Your task to perform on an android device: Clear the cart on newegg. Search for razer thresher on newegg, select the first entry, and add it to the cart. Image 0: 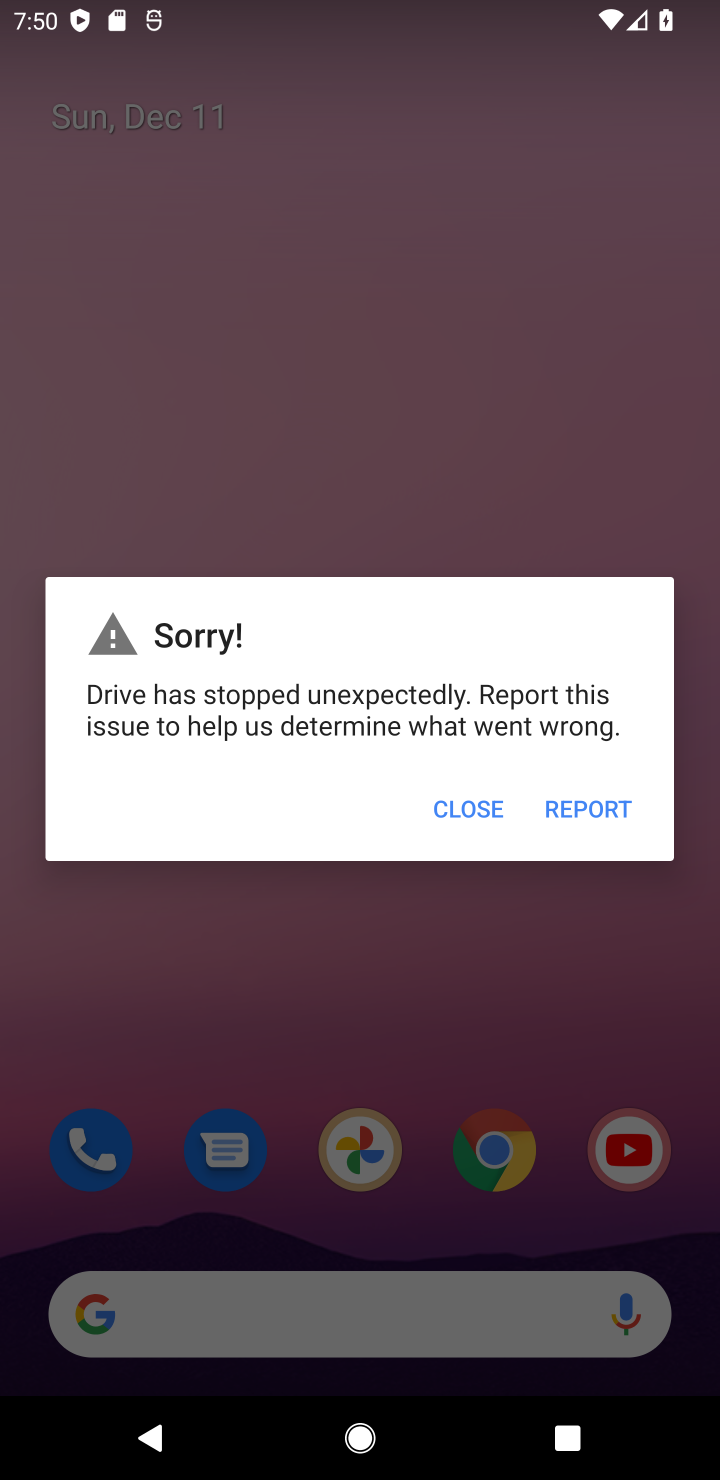
Step 0: press home button
Your task to perform on an android device: Clear the cart on newegg. Search for razer thresher on newegg, select the first entry, and add it to the cart. Image 1: 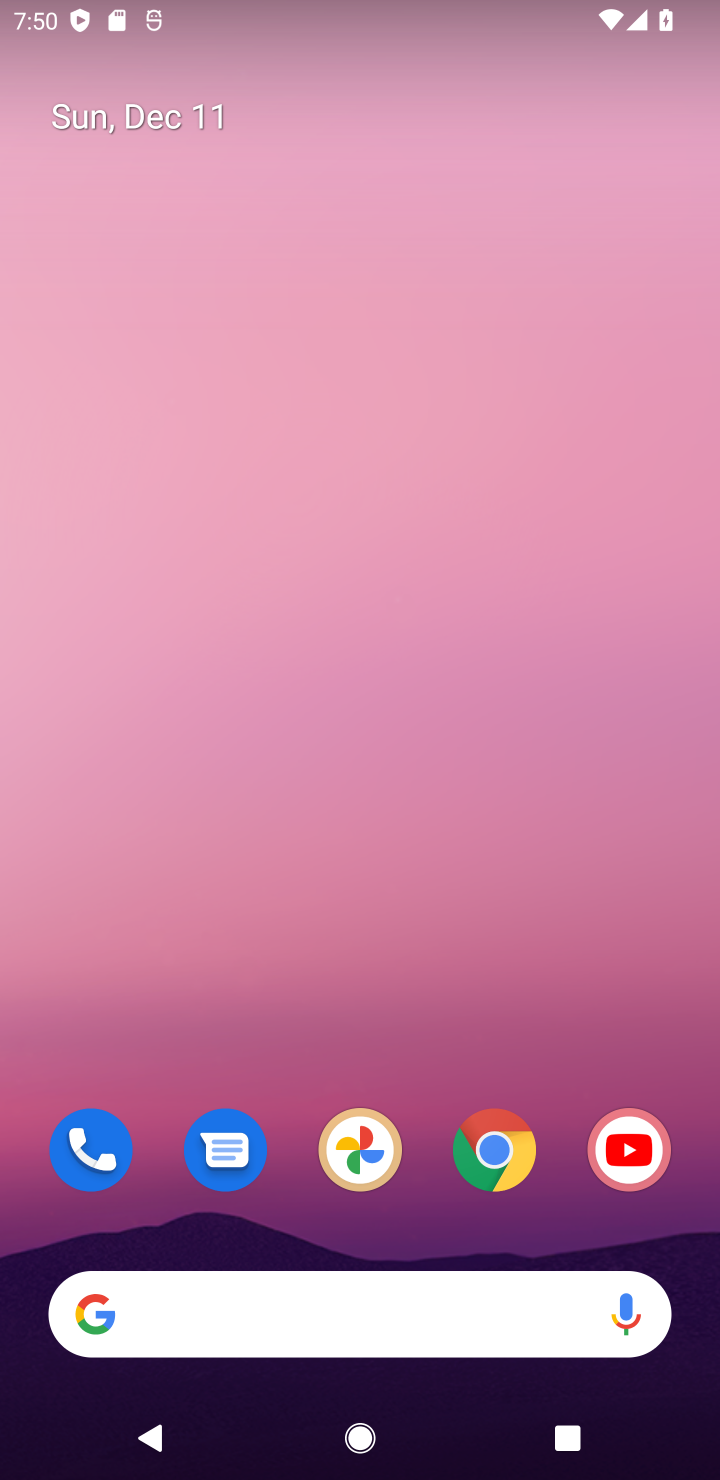
Step 1: click (494, 1151)
Your task to perform on an android device: Clear the cart on newegg. Search for razer thresher on newegg, select the first entry, and add it to the cart. Image 2: 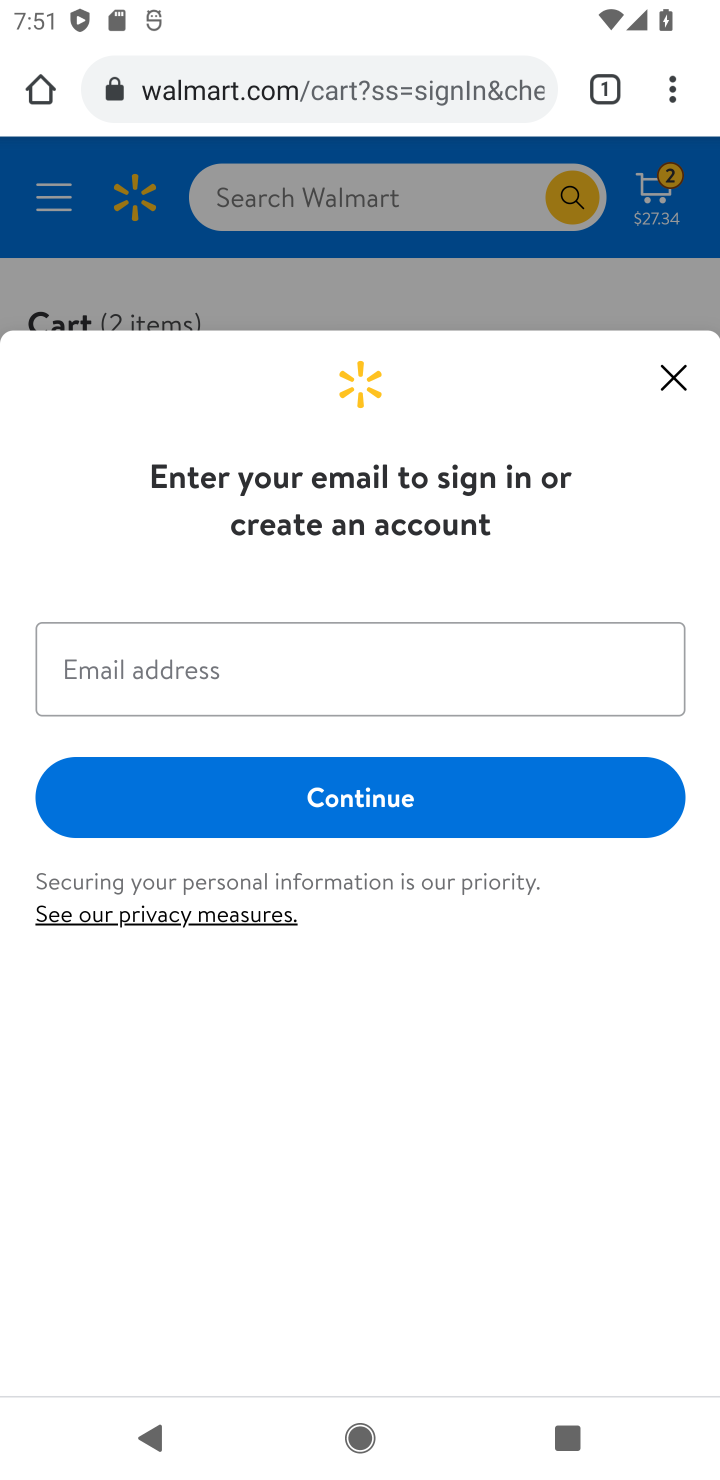
Step 2: click (413, 83)
Your task to perform on an android device: Clear the cart on newegg. Search for razer thresher on newegg, select the first entry, and add it to the cart. Image 3: 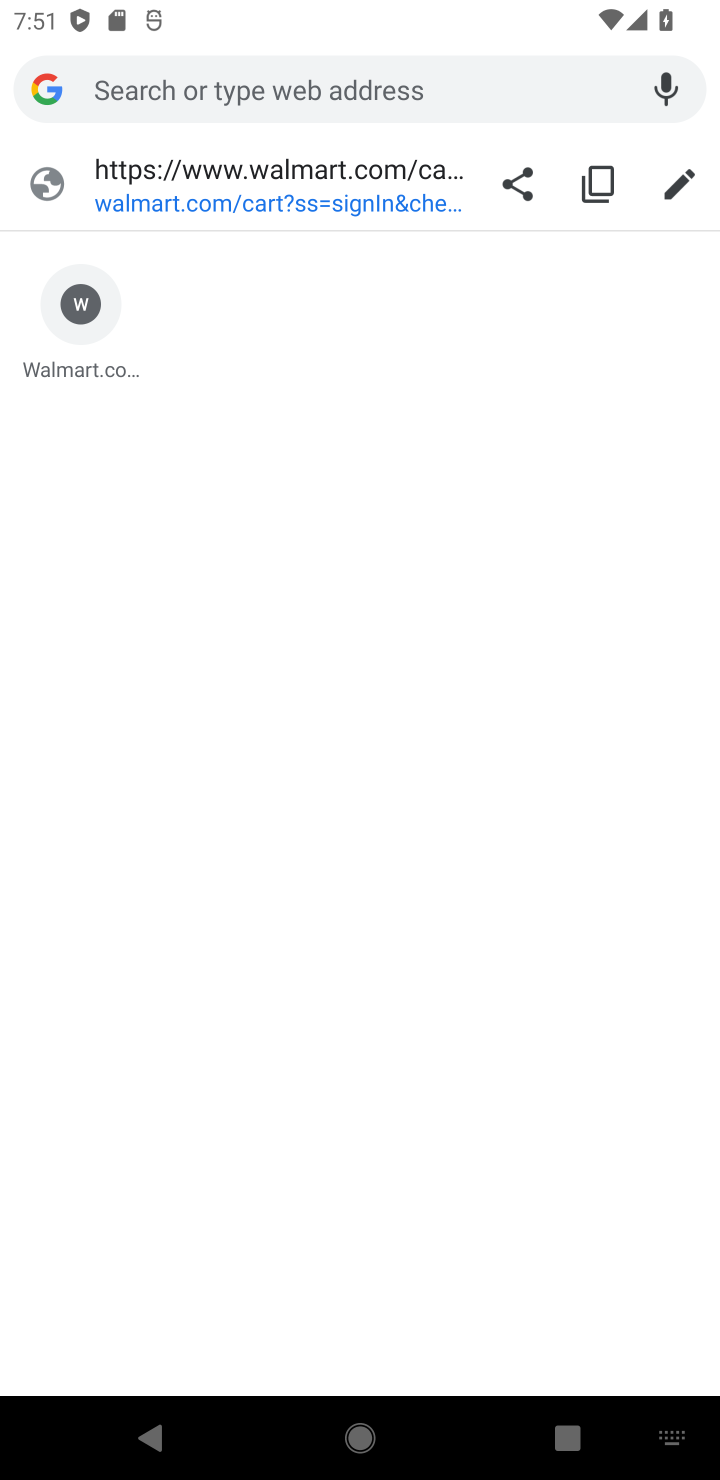
Step 3: type "newegg"
Your task to perform on an android device: Clear the cart on newegg. Search for razer thresher on newegg, select the first entry, and add it to the cart. Image 4: 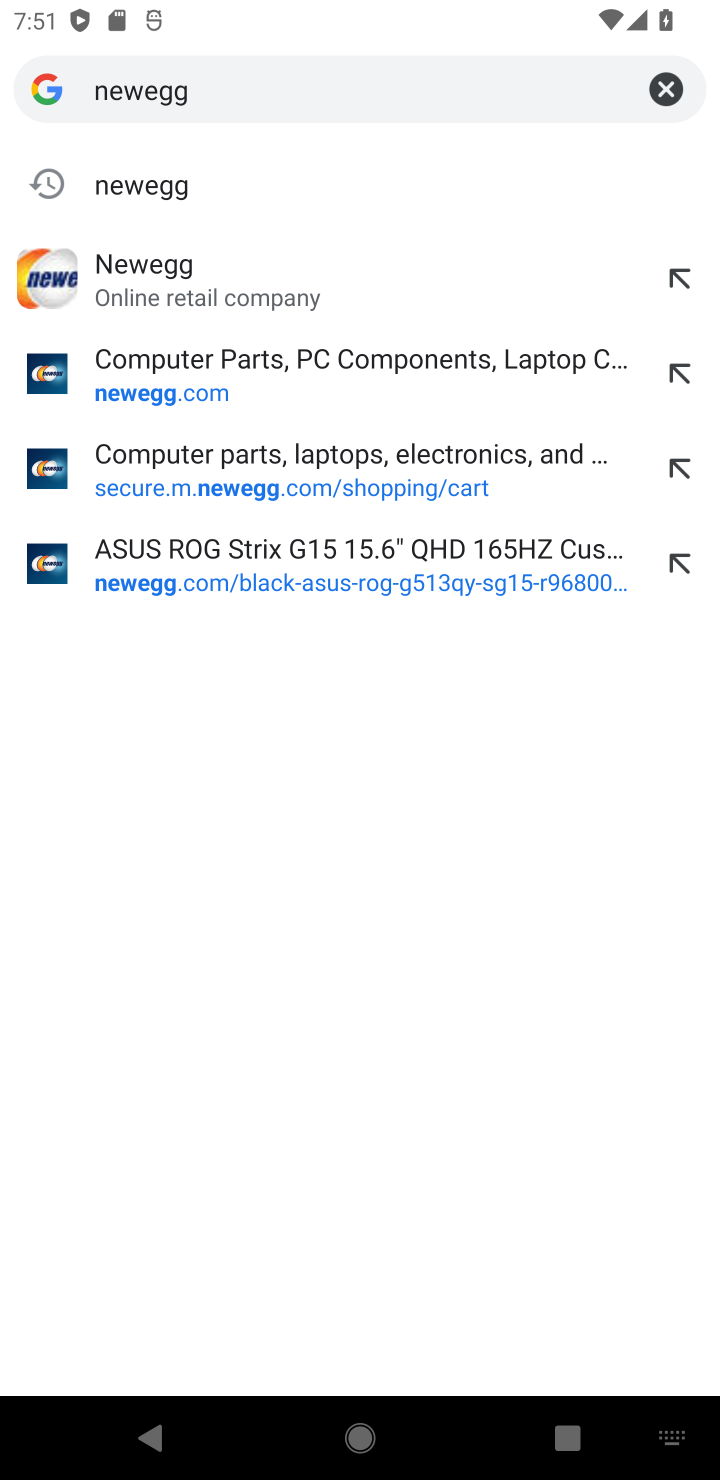
Step 4: click (152, 184)
Your task to perform on an android device: Clear the cart on newegg. Search for razer thresher on newegg, select the first entry, and add it to the cart. Image 5: 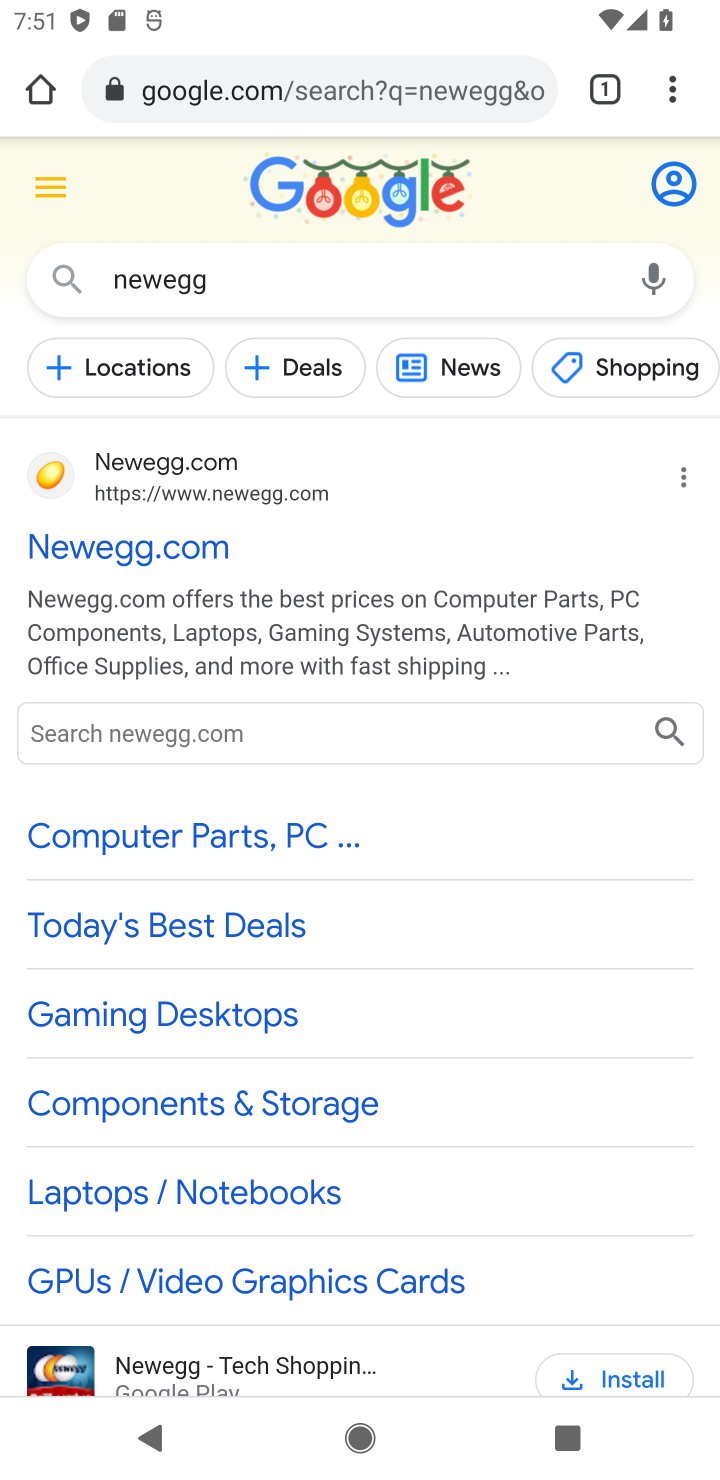
Step 5: click (164, 542)
Your task to perform on an android device: Clear the cart on newegg. Search for razer thresher on newegg, select the first entry, and add it to the cart. Image 6: 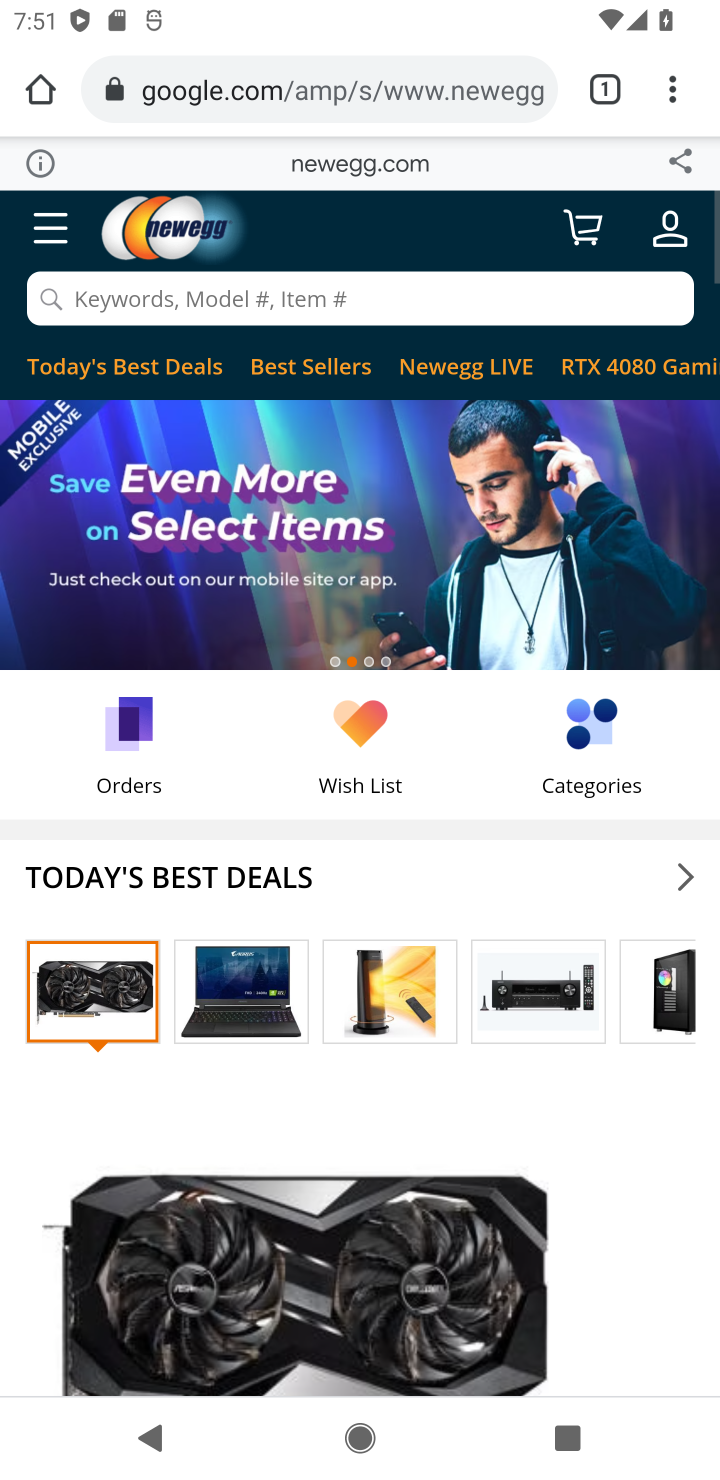
Step 6: click (583, 229)
Your task to perform on an android device: Clear the cart on newegg. Search for razer thresher on newegg, select the first entry, and add it to the cart. Image 7: 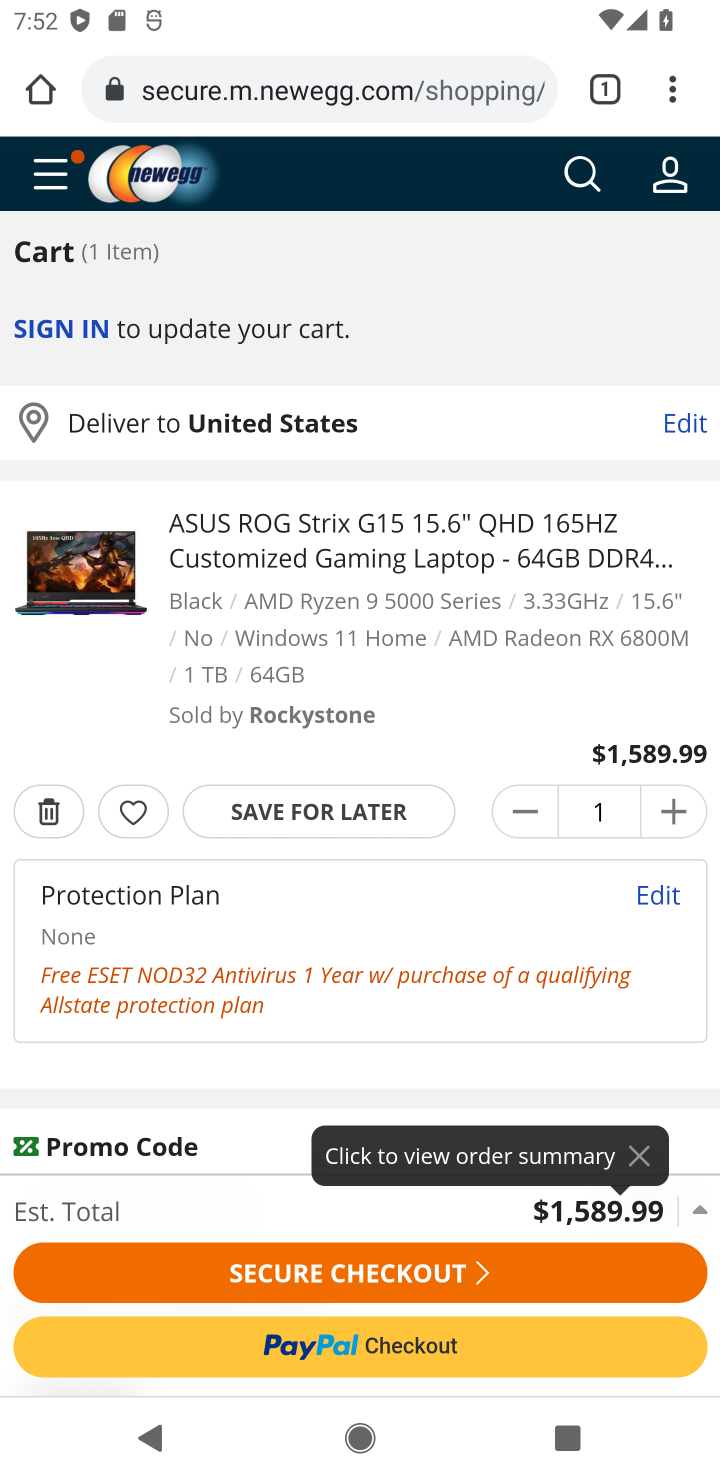
Step 7: click (584, 169)
Your task to perform on an android device: Clear the cart on newegg. Search for razer thresher on newegg, select the first entry, and add it to the cart. Image 8: 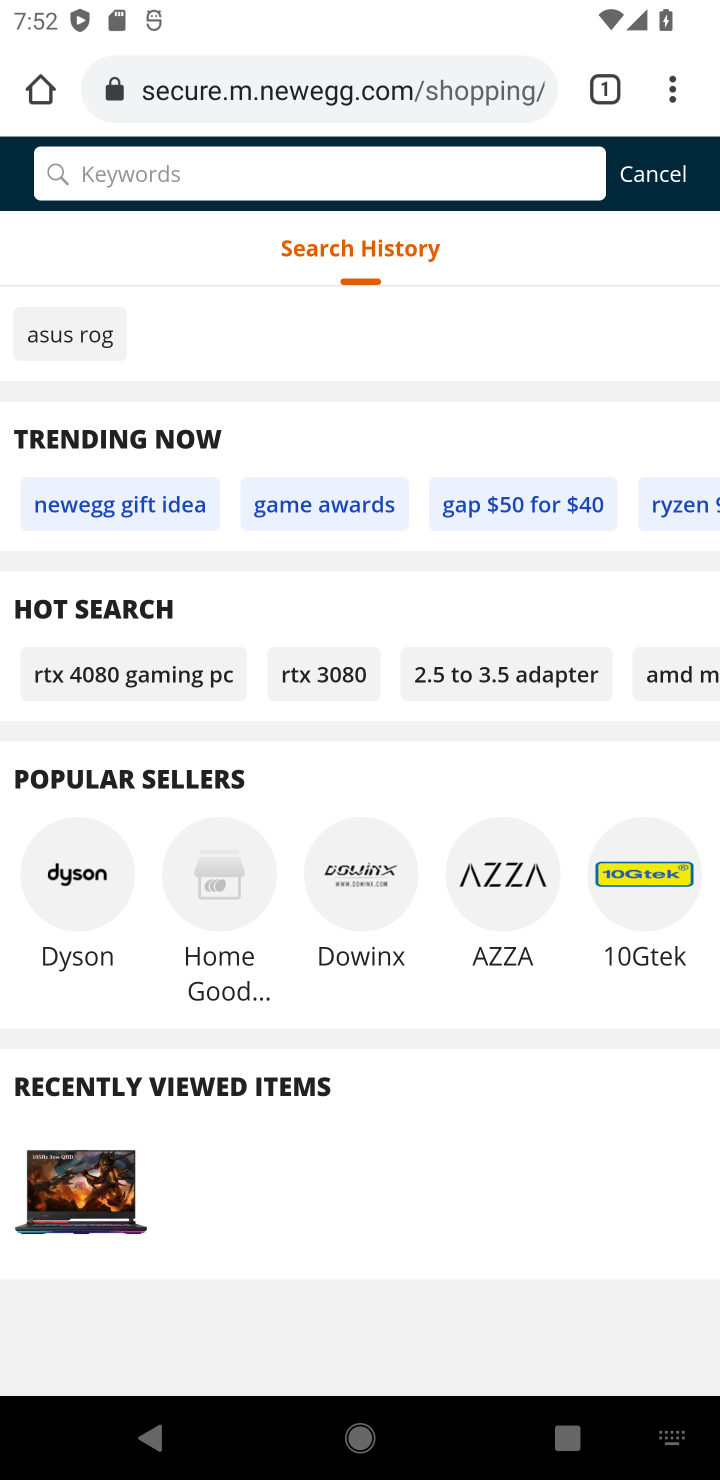
Step 8: type "razer thresher"
Your task to perform on an android device: Clear the cart on newegg. Search for razer thresher on newegg, select the first entry, and add it to the cart. Image 9: 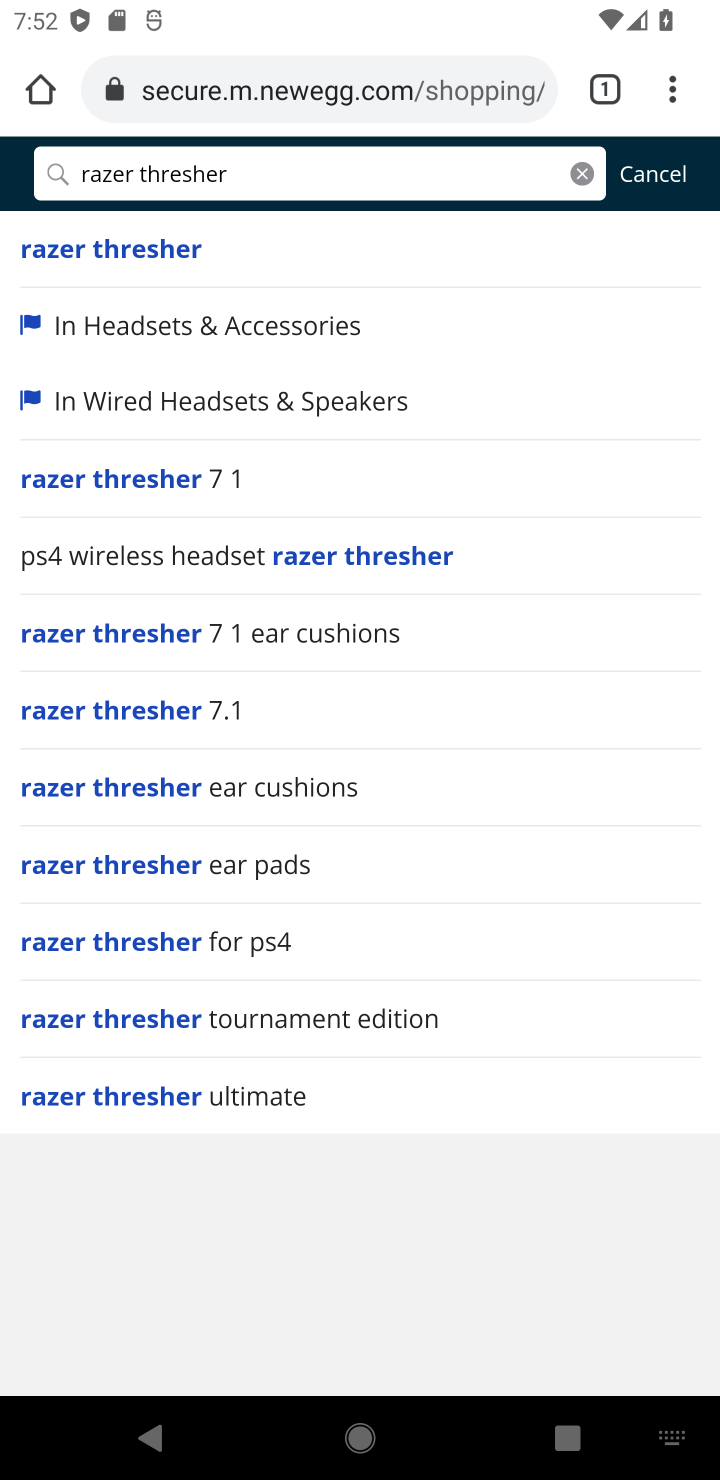
Step 9: click (124, 249)
Your task to perform on an android device: Clear the cart on newegg. Search for razer thresher on newegg, select the first entry, and add it to the cart. Image 10: 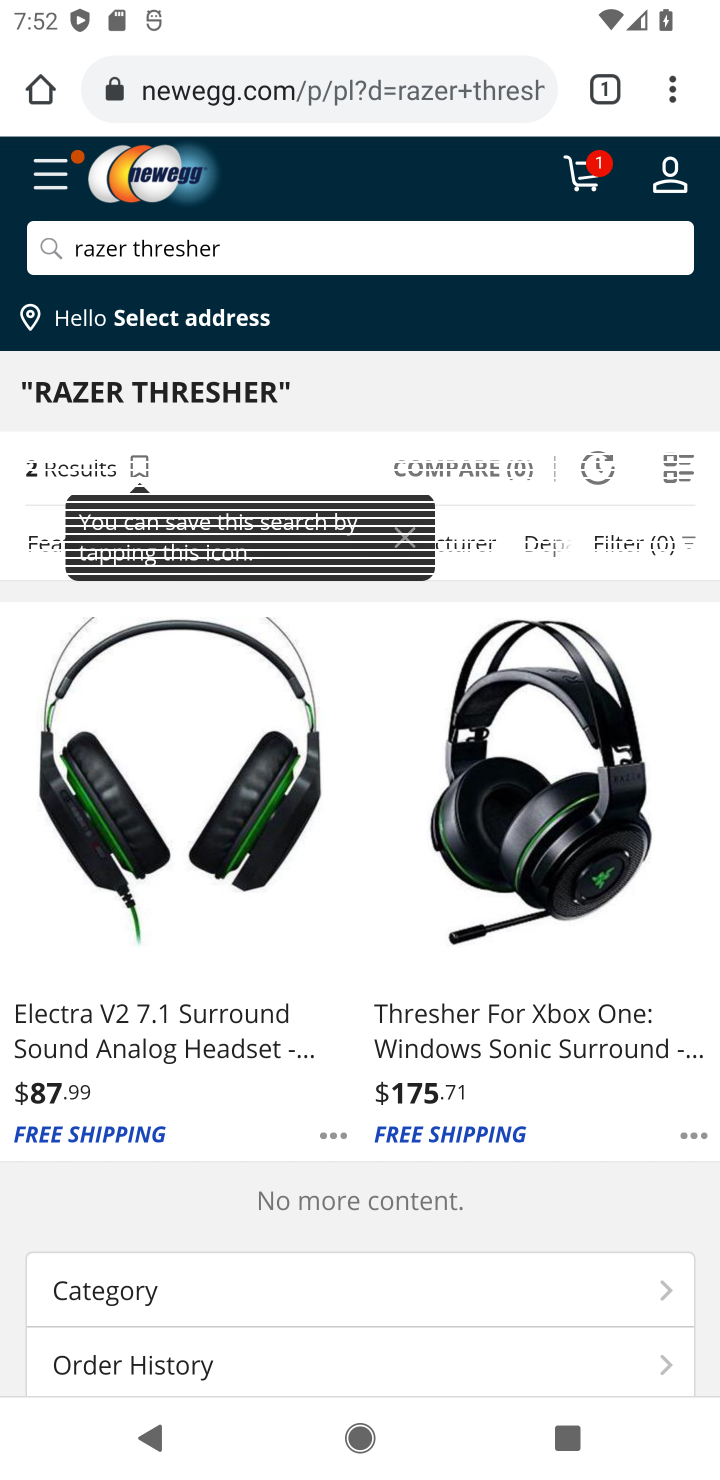
Step 10: click (103, 1032)
Your task to perform on an android device: Clear the cart on newegg. Search for razer thresher on newegg, select the first entry, and add it to the cart. Image 11: 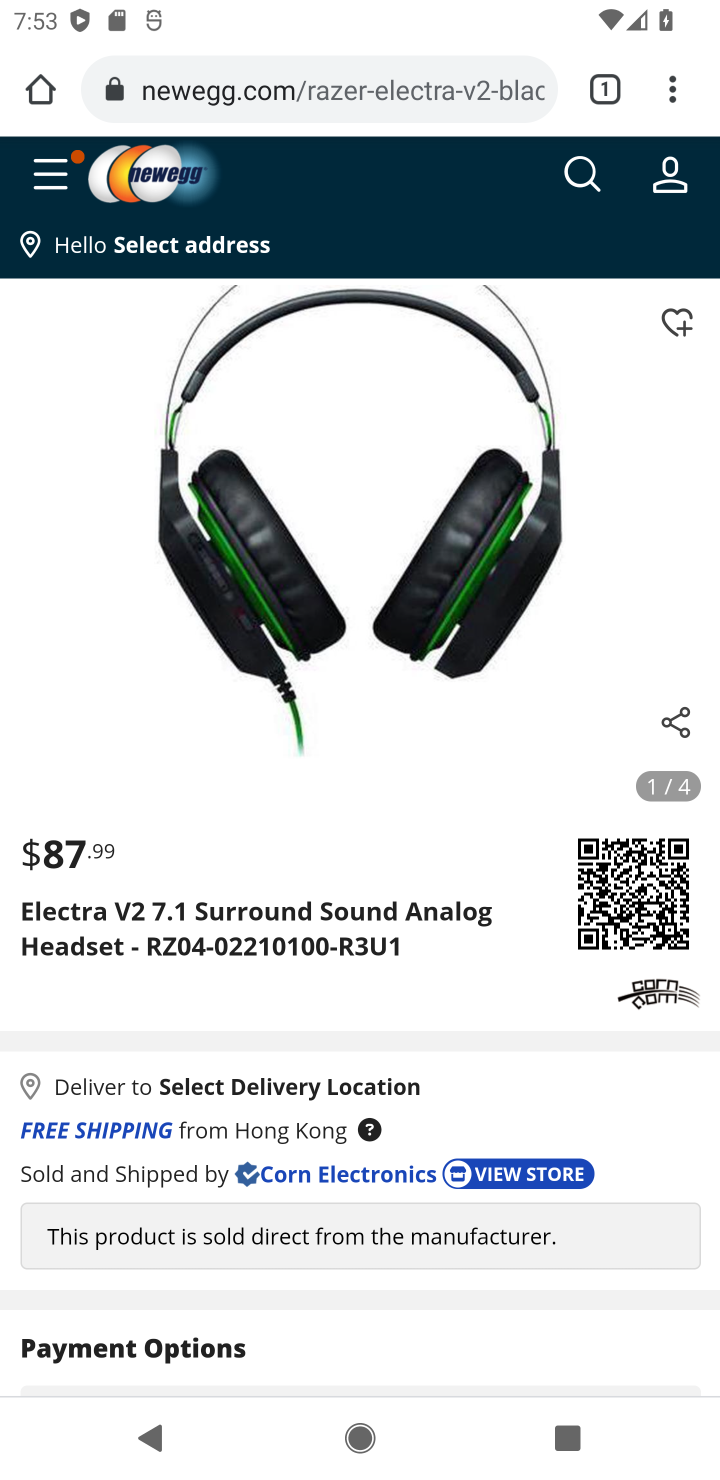
Step 11: click (295, 1361)
Your task to perform on an android device: Clear the cart on newegg. Search for razer thresher on newegg, select the first entry, and add it to the cart. Image 12: 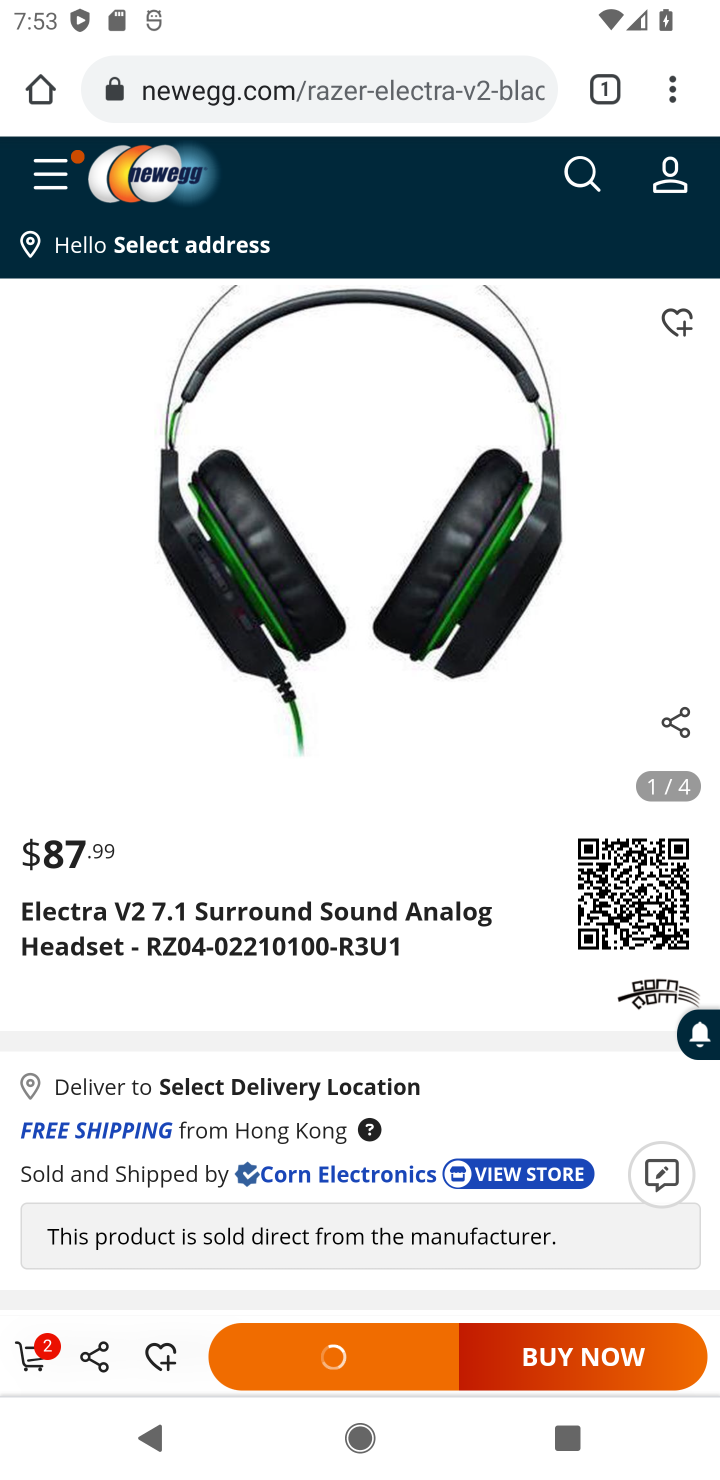
Step 12: click (295, 1361)
Your task to perform on an android device: Clear the cart on newegg. Search for razer thresher on newegg, select the first entry, and add it to the cart. Image 13: 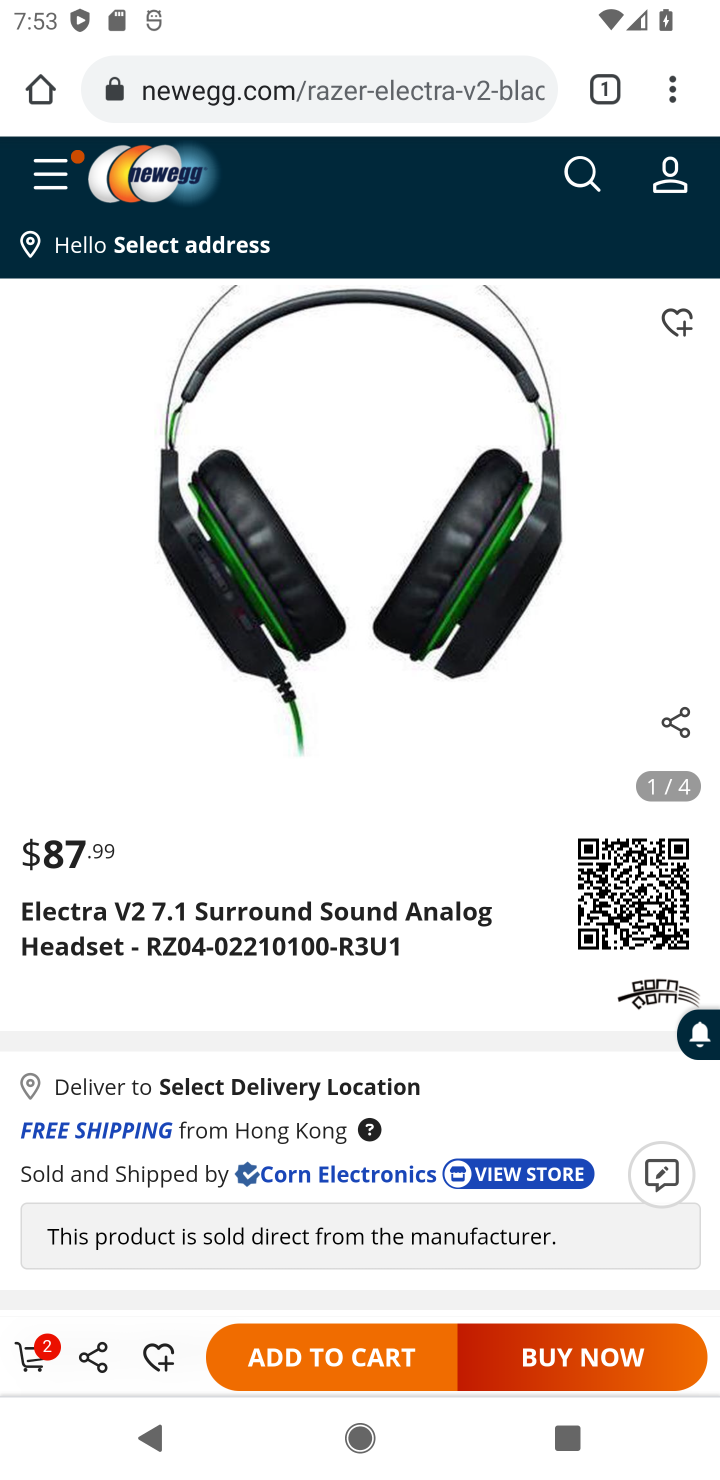
Step 13: task complete